Your task to perform on an android device: Go to settings Image 0: 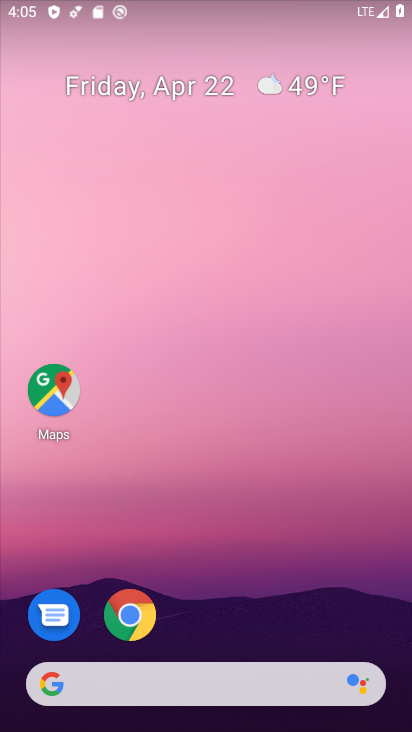
Step 0: drag from (290, 563) to (241, 99)
Your task to perform on an android device: Go to settings Image 1: 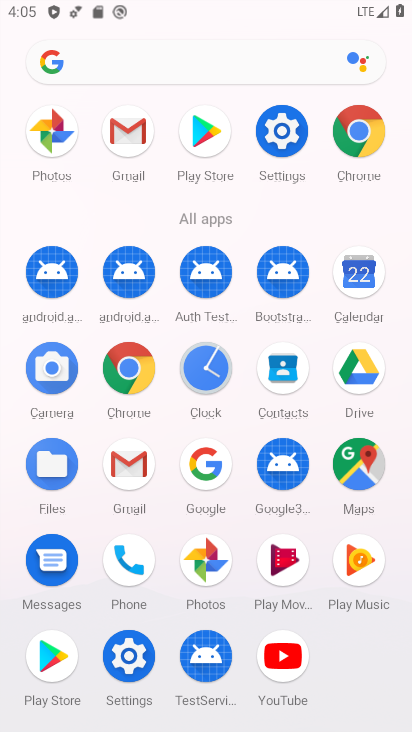
Step 1: click (285, 131)
Your task to perform on an android device: Go to settings Image 2: 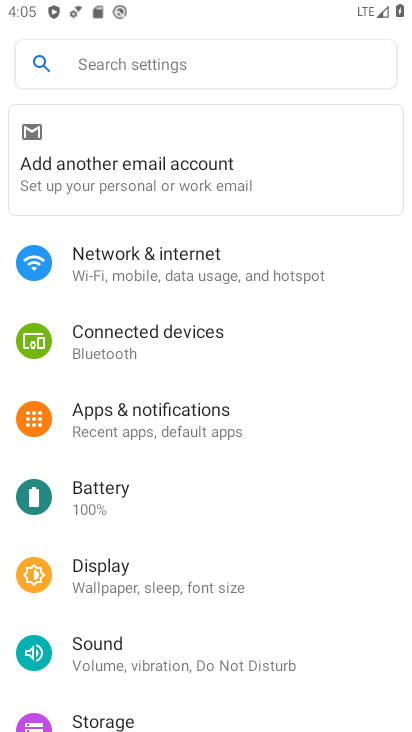
Step 2: task complete